Your task to perform on an android device: set the stopwatch Image 0: 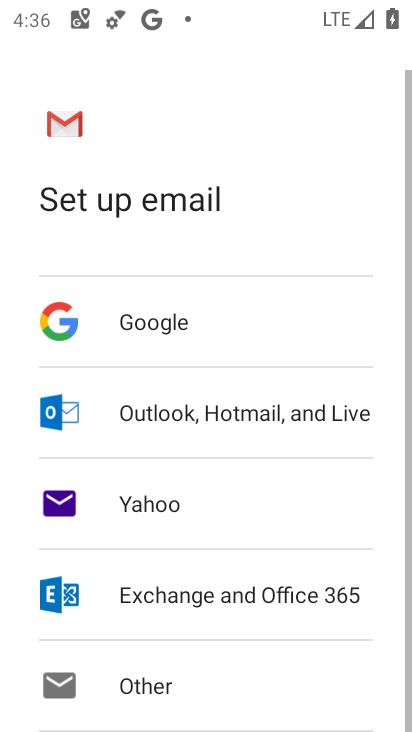
Step 0: press home button
Your task to perform on an android device: set the stopwatch Image 1: 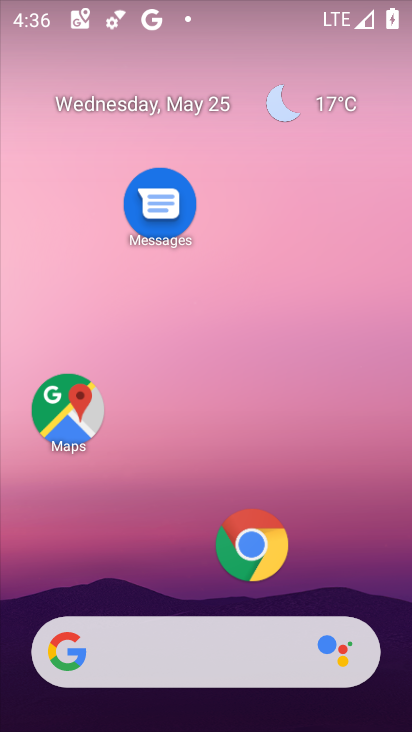
Step 1: drag from (347, 546) to (336, 85)
Your task to perform on an android device: set the stopwatch Image 2: 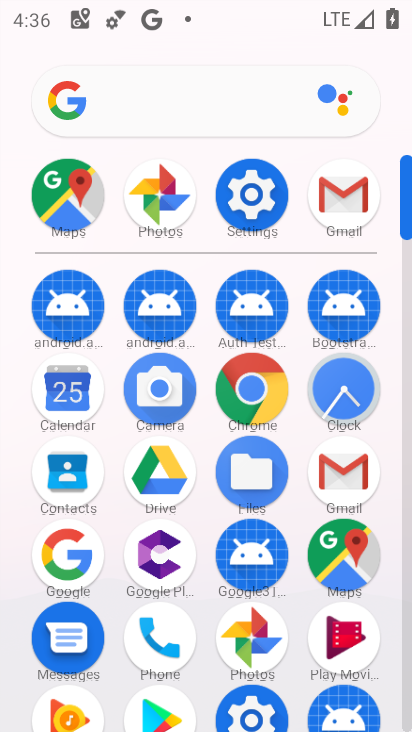
Step 2: click (348, 403)
Your task to perform on an android device: set the stopwatch Image 3: 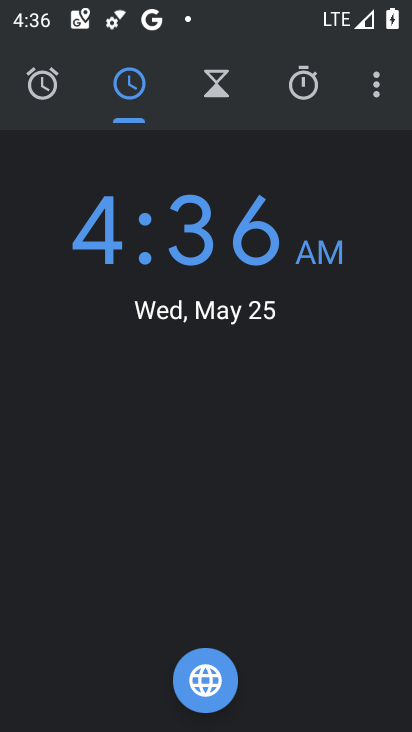
Step 3: click (306, 87)
Your task to perform on an android device: set the stopwatch Image 4: 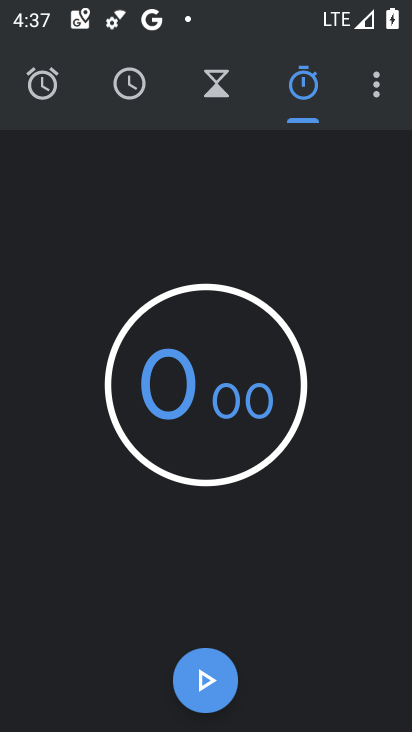
Step 4: click (208, 673)
Your task to perform on an android device: set the stopwatch Image 5: 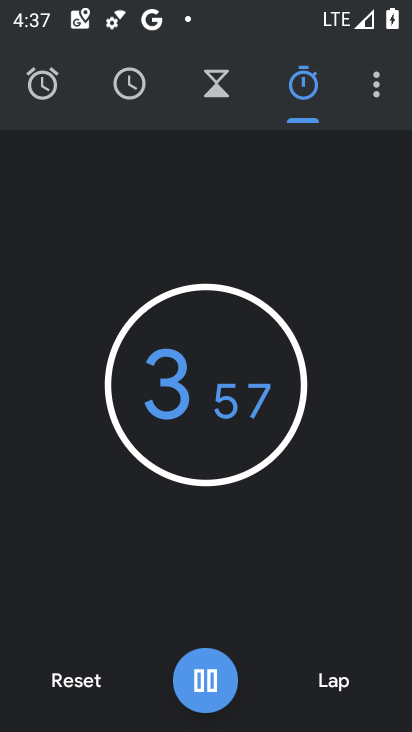
Step 5: task complete